Your task to perform on an android device: toggle sleep mode Image 0: 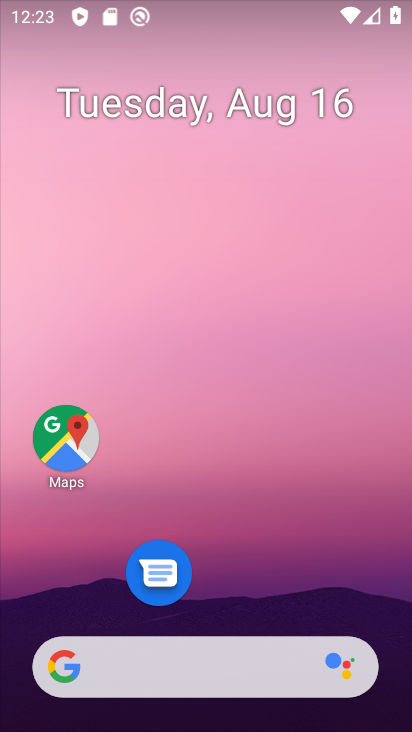
Step 0: drag from (264, 604) to (218, 56)
Your task to perform on an android device: toggle sleep mode Image 1: 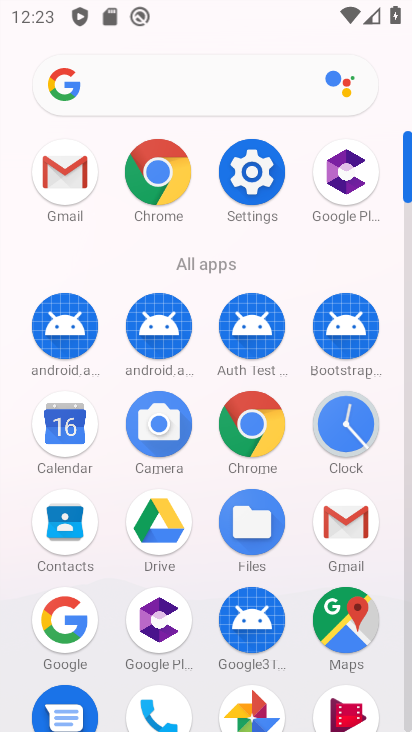
Step 1: click (247, 173)
Your task to perform on an android device: toggle sleep mode Image 2: 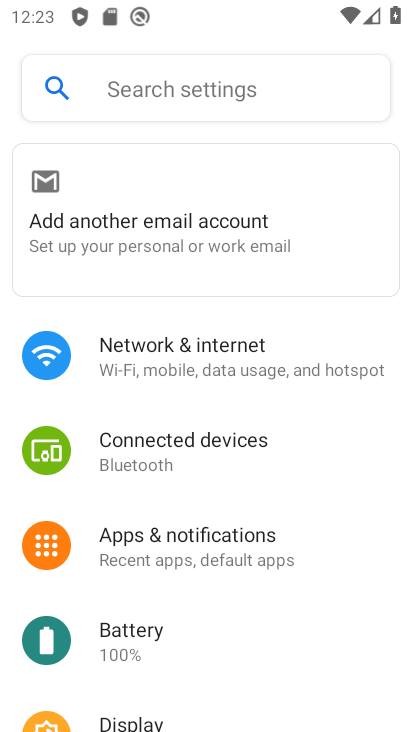
Step 2: drag from (197, 577) to (169, 222)
Your task to perform on an android device: toggle sleep mode Image 3: 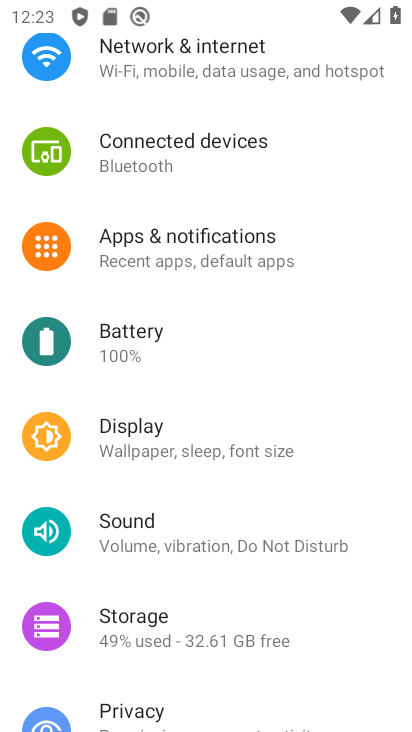
Step 3: click (167, 424)
Your task to perform on an android device: toggle sleep mode Image 4: 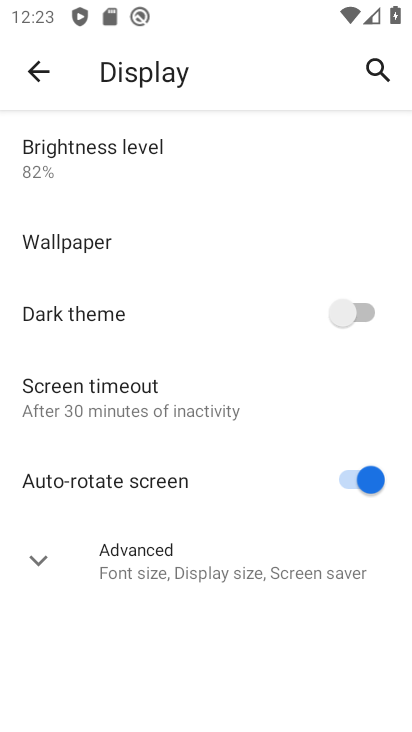
Step 4: click (137, 557)
Your task to perform on an android device: toggle sleep mode Image 5: 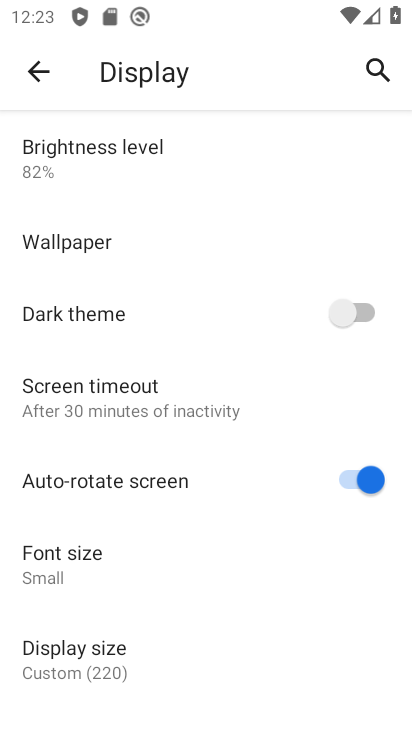
Step 5: task complete